Your task to perform on an android device: create a new album in the google photos Image 0: 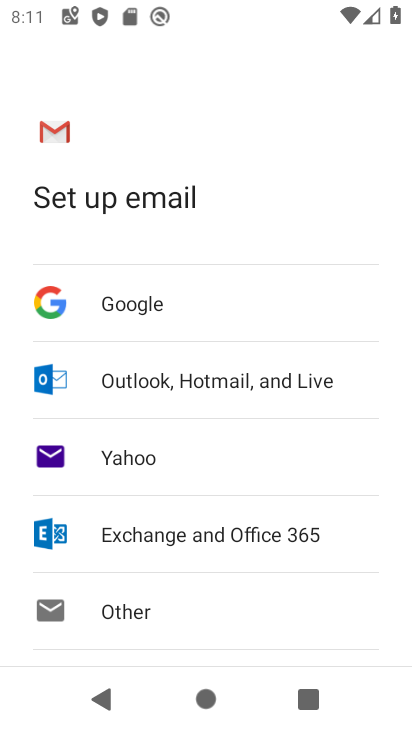
Step 0: press home button
Your task to perform on an android device: create a new album in the google photos Image 1: 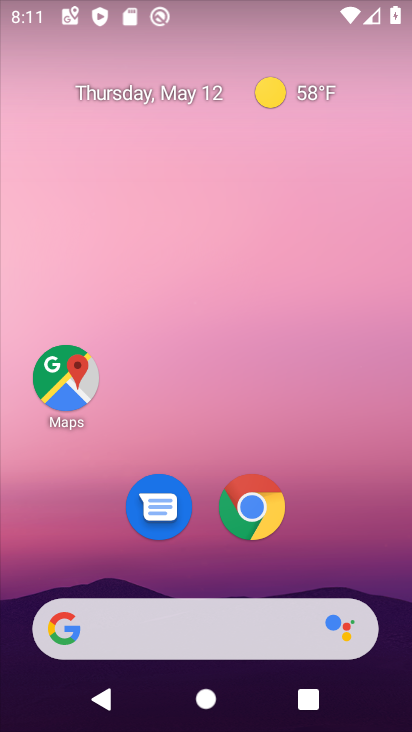
Step 1: drag from (200, 505) to (210, 218)
Your task to perform on an android device: create a new album in the google photos Image 2: 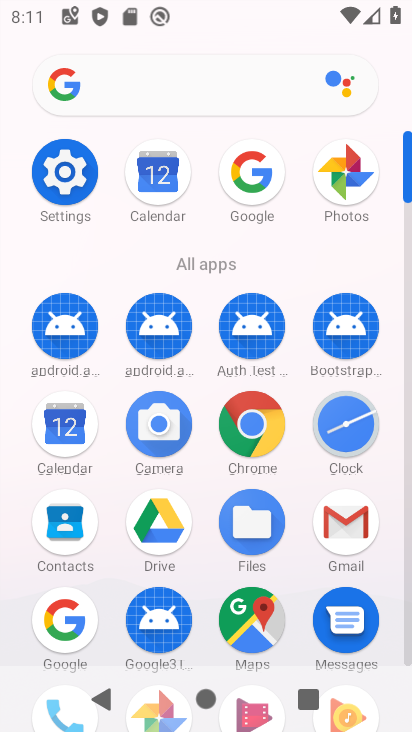
Step 2: click (343, 188)
Your task to perform on an android device: create a new album in the google photos Image 3: 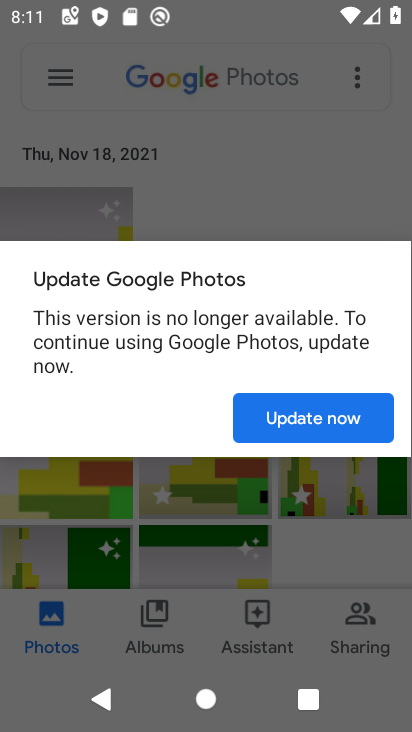
Step 3: click (317, 412)
Your task to perform on an android device: create a new album in the google photos Image 4: 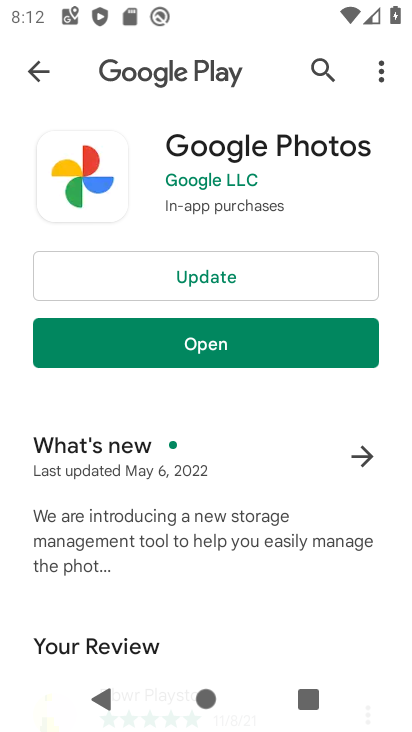
Step 4: click (221, 332)
Your task to perform on an android device: create a new album in the google photos Image 5: 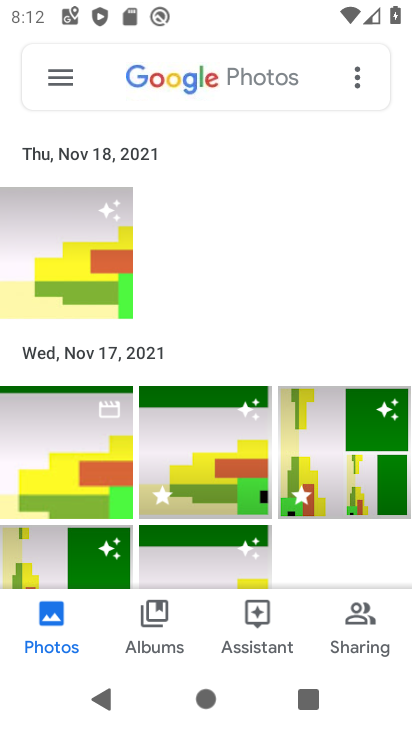
Step 5: click (354, 75)
Your task to perform on an android device: create a new album in the google photos Image 6: 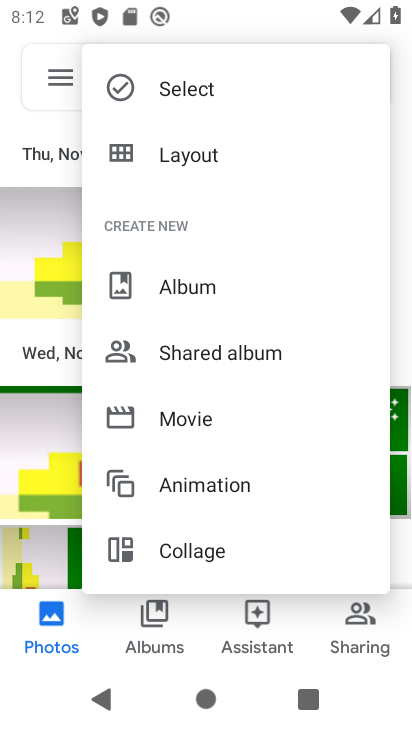
Step 6: click (226, 283)
Your task to perform on an android device: create a new album in the google photos Image 7: 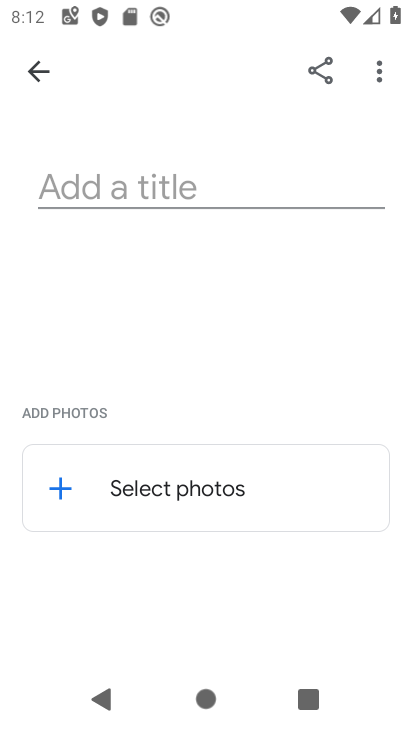
Step 7: click (147, 198)
Your task to perform on an android device: create a new album in the google photos Image 8: 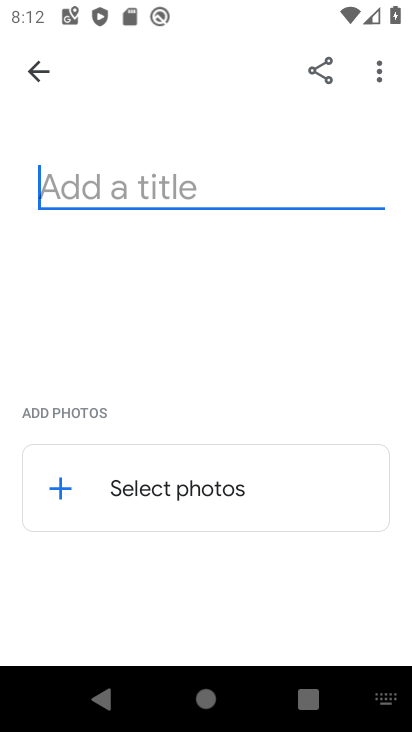
Step 8: type "dbgsdb"
Your task to perform on an android device: create a new album in the google photos Image 9: 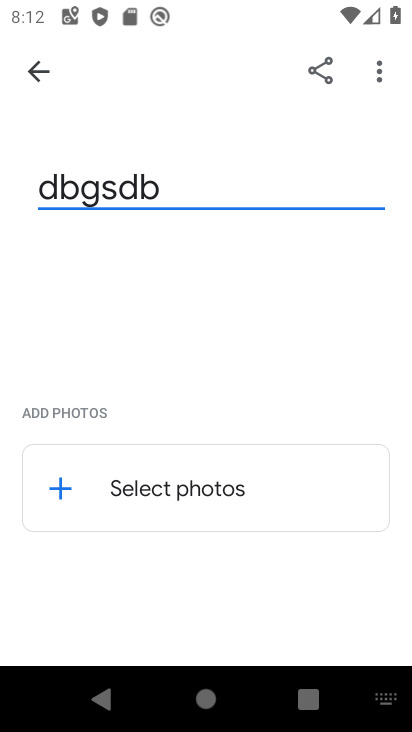
Step 9: click (61, 481)
Your task to perform on an android device: create a new album in the google photos Image 10: 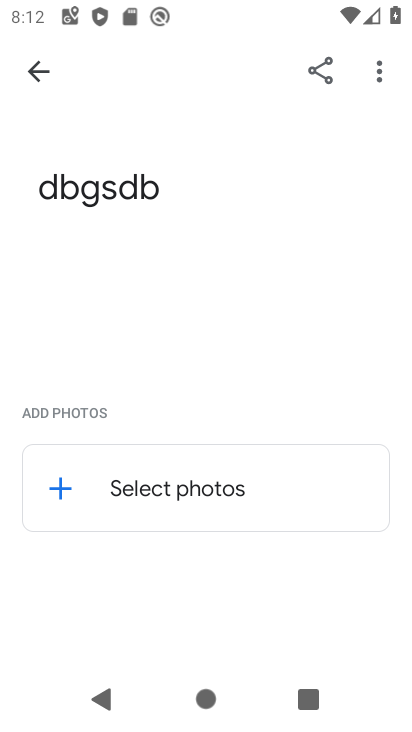
Step 10: click (61, 482)
Your task to perform on an android device: create a new album in the google photos Image 11: 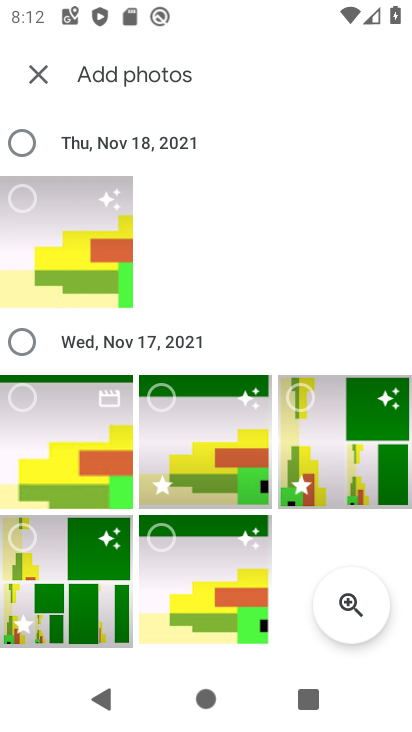
Step 11: click (9, 191)
Your task to perform on an android device: create a new album in the google photos Image 12: 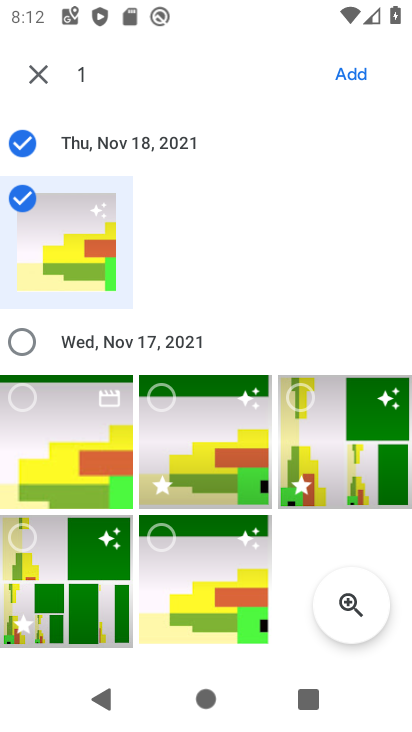
Step 12: click (339, 72)
Your task to perform on an android device: create a new album in the google photos Image 13: 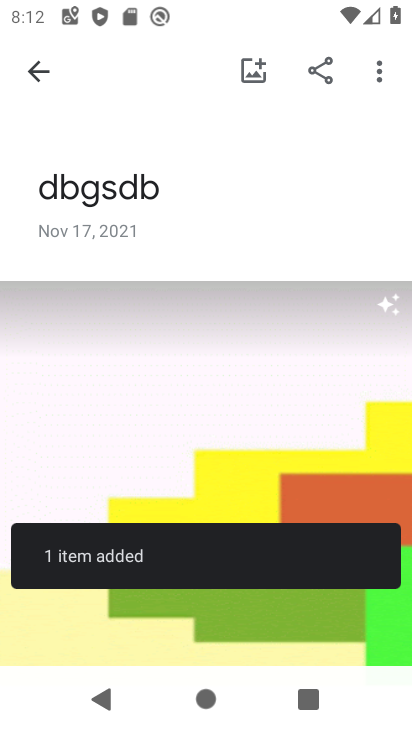
Step 13: task complete